Your task to perform on an android device: turn off data saver in the chrome app Image 0: 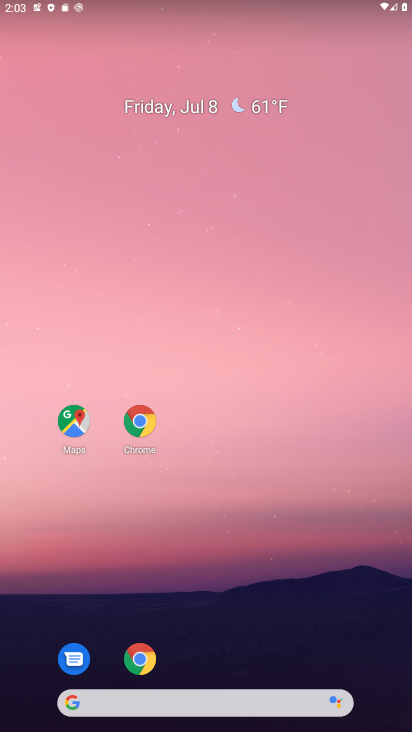
Step 0: drag from (256, 669) to (214, 163)
Your task to perform on an android device: turn off data saver in the chrome app Image 1: 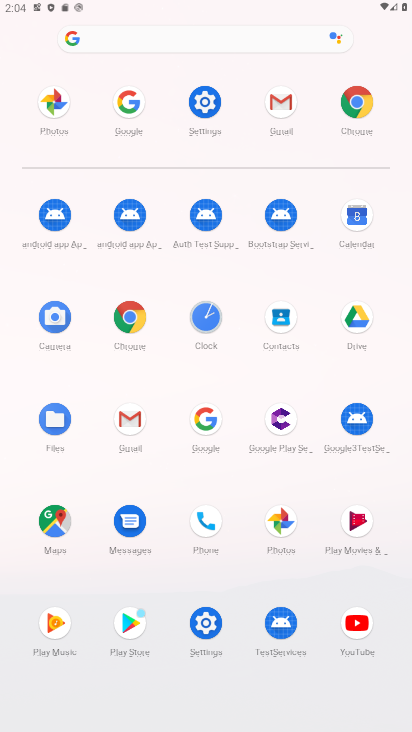
Step 1: click (345, 108)
Your task to perform on an android device: turn off data saver in the chrome app Image 2: 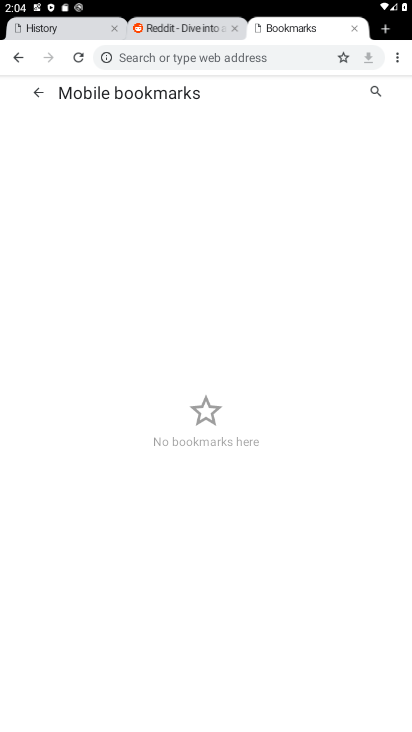
Step 2: click (399, 59)
Your task to perform on an android device: turn off data saver in the chrome app Image 3: 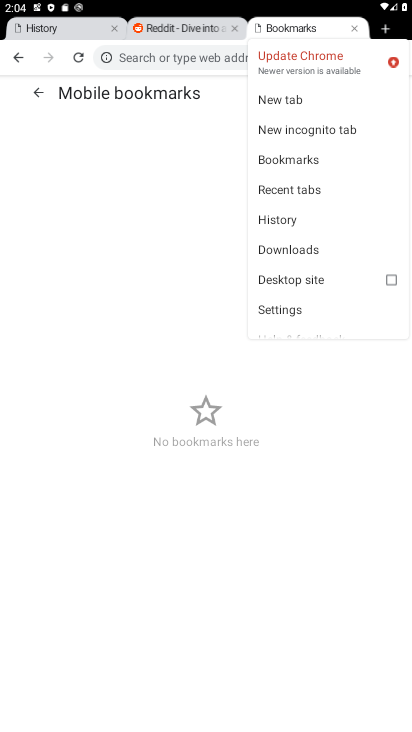
Step 3: click (285, 297)
Your task to perform on an android device: turn off data saver in the chrome app Image 4: 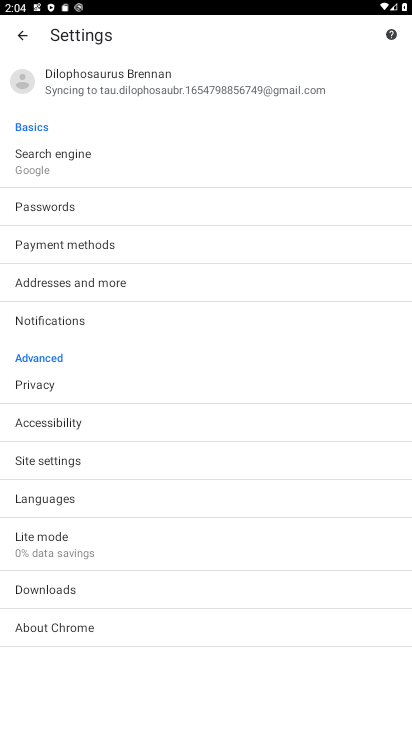
Step 4: click (110, 523)
Your task to perform on an android device: turn off data saver in the chrome app Image 5: 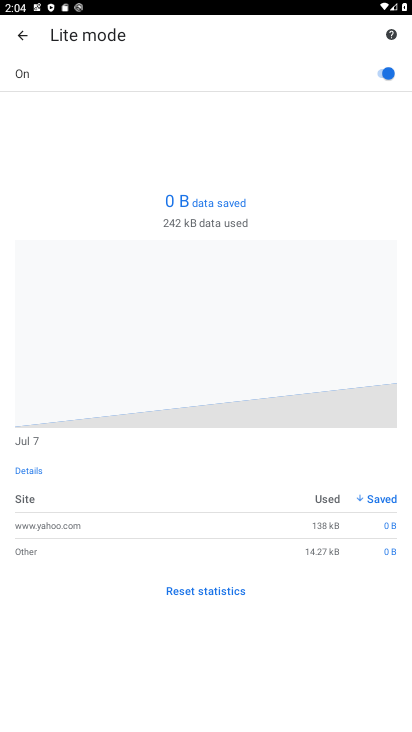
Step 5: click (387, 59)
Your task to perform on an android device: turn off data saver in the chrome app Image 6: 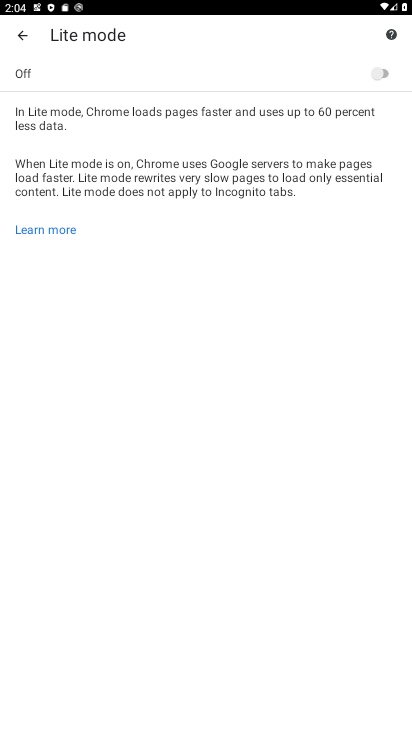
Step 6: task complete